Your task to perform on an android device: Is it going to rain tomorrow? Image 0: 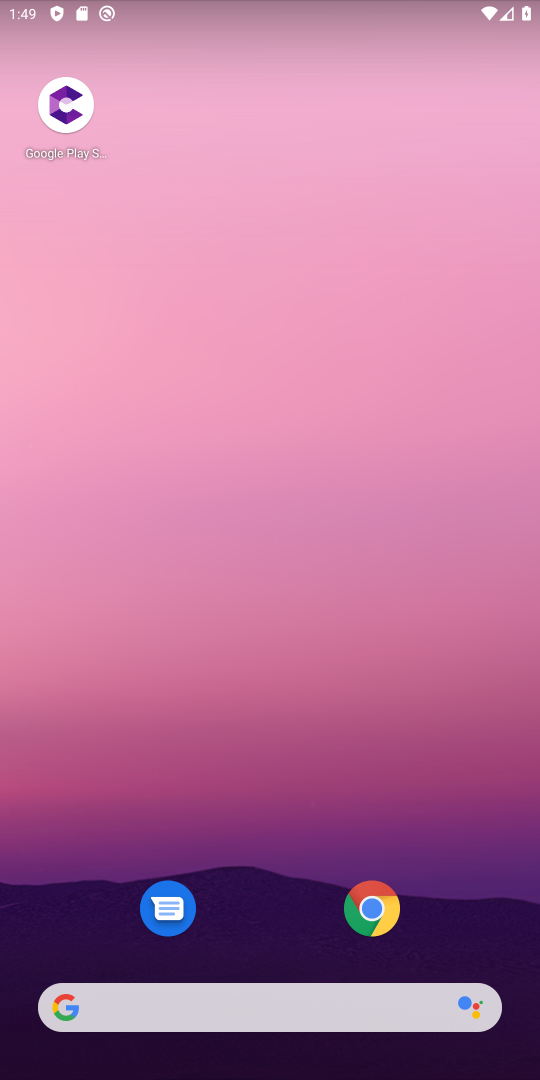
Step 0: click (351, 1008)
Your task to perform on an android device: Is it going to rain tomorrow? Image 1: 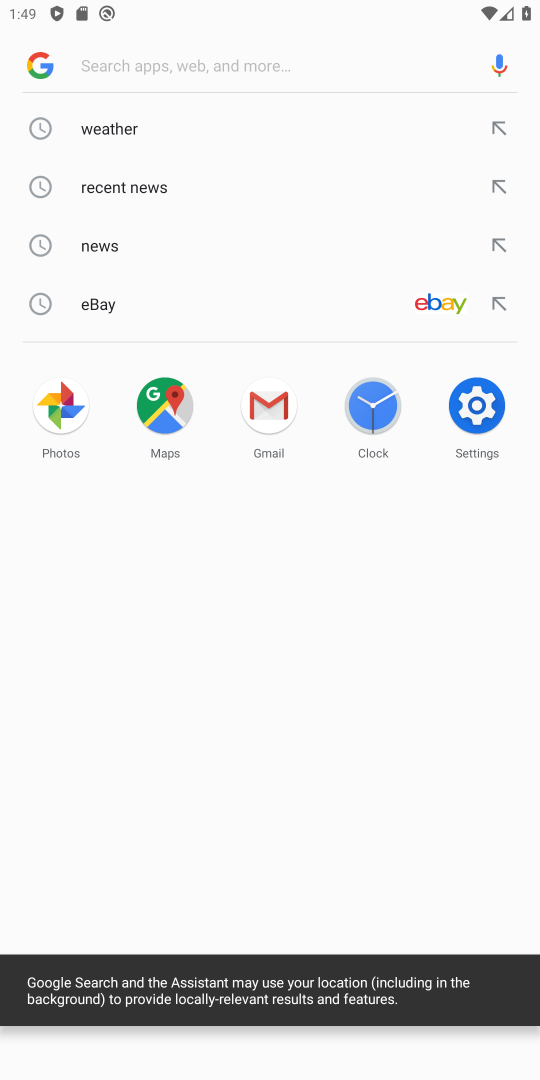
Step 1: type "Is it going to rain tomorrow?"
Your task to perform on an android device: Is it going to rain tomorrow? Image 2: 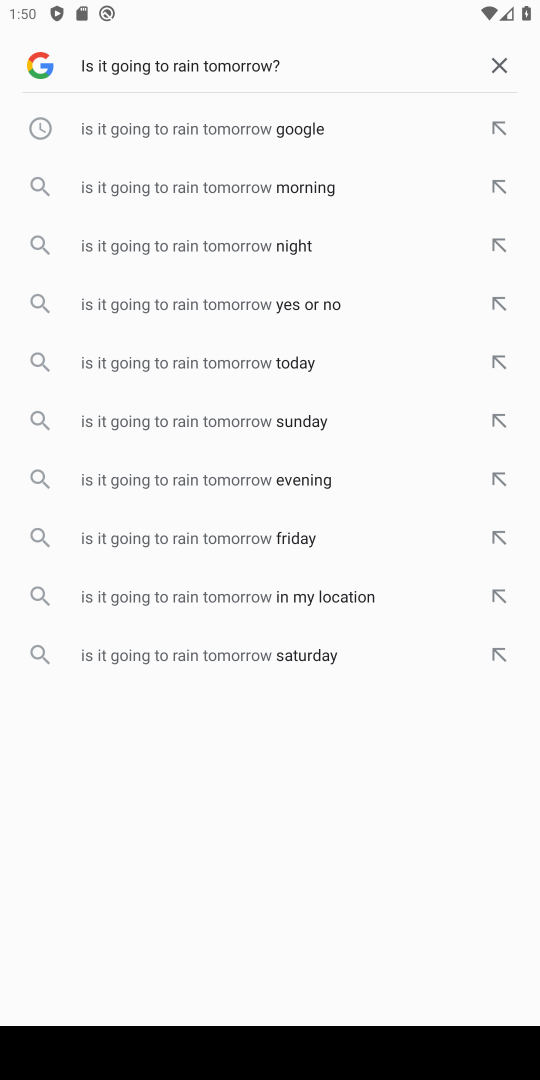
Step 2: click (152, 72)
Your task to perform on an android device: Is it going to rain tomorrow? Image 3: 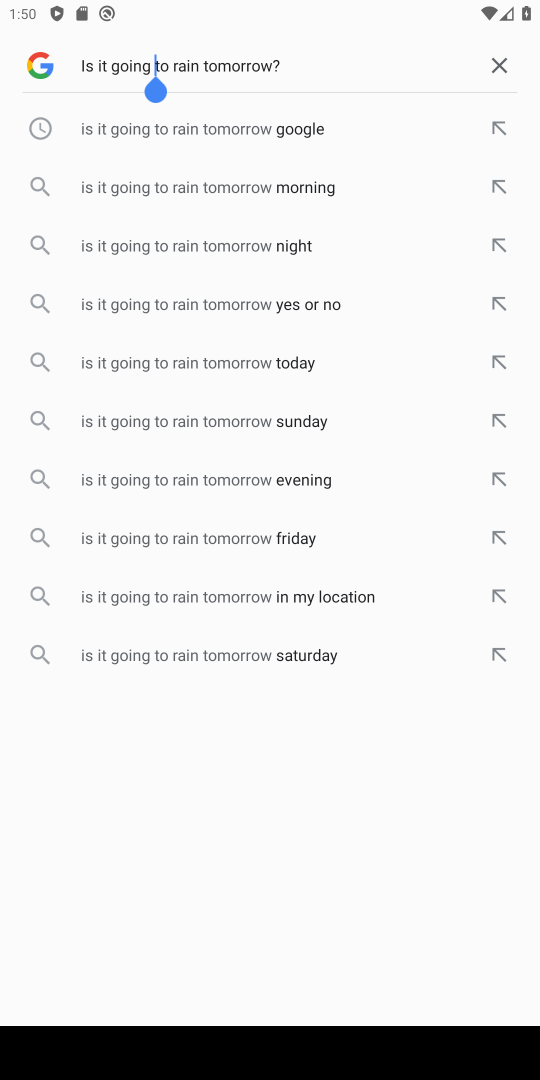
Step 3: press enter
Your task to perform on an android device: Is it going to rain tomorrow? Image 4: 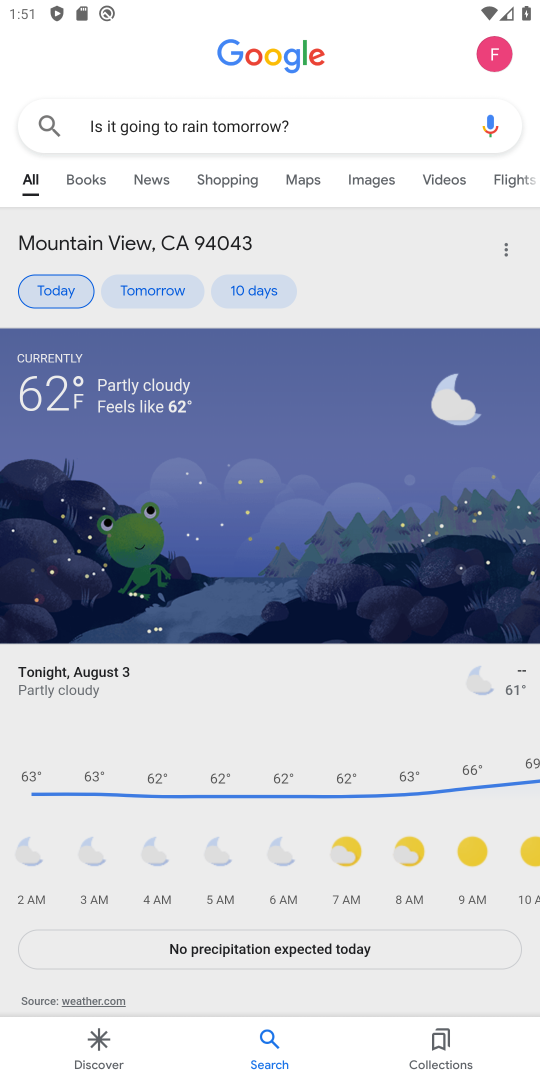
Step 4: task complete